Your task to perform on an android device: open app "Google Docs" Image 0: 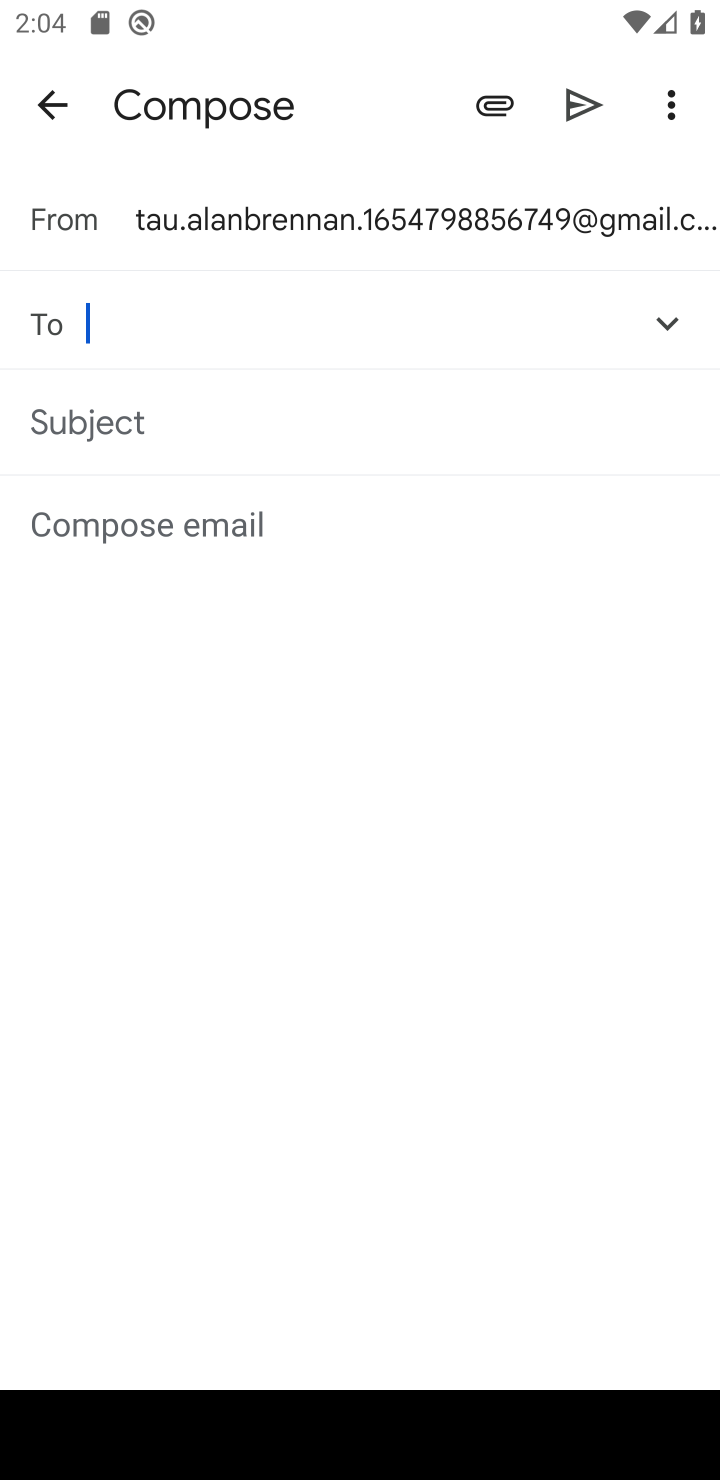
Step 0: click (465, 84)
Your task to perform on an android device: open app "Google Docs" Image 1: 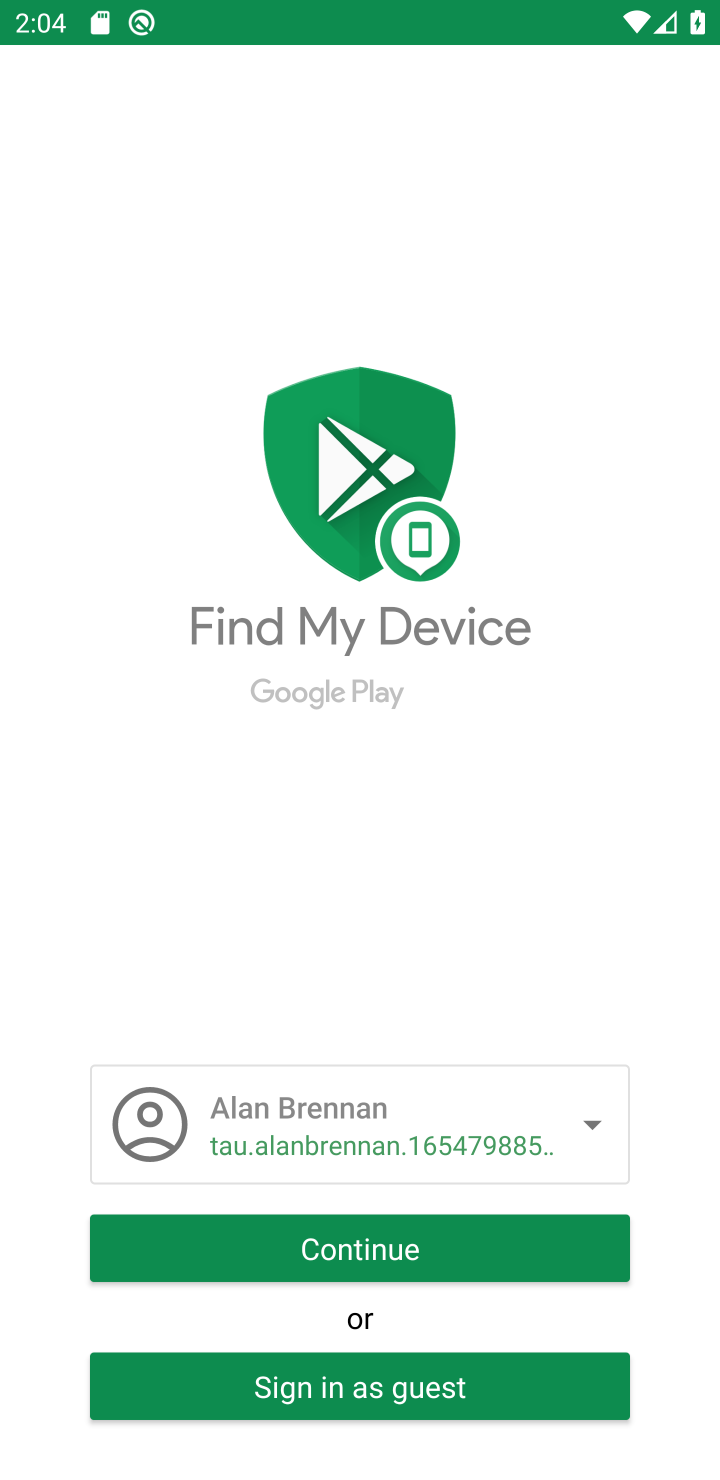
Step 1: press home button
Your task to perform on an android device: open app "Google Docs" Image 2: 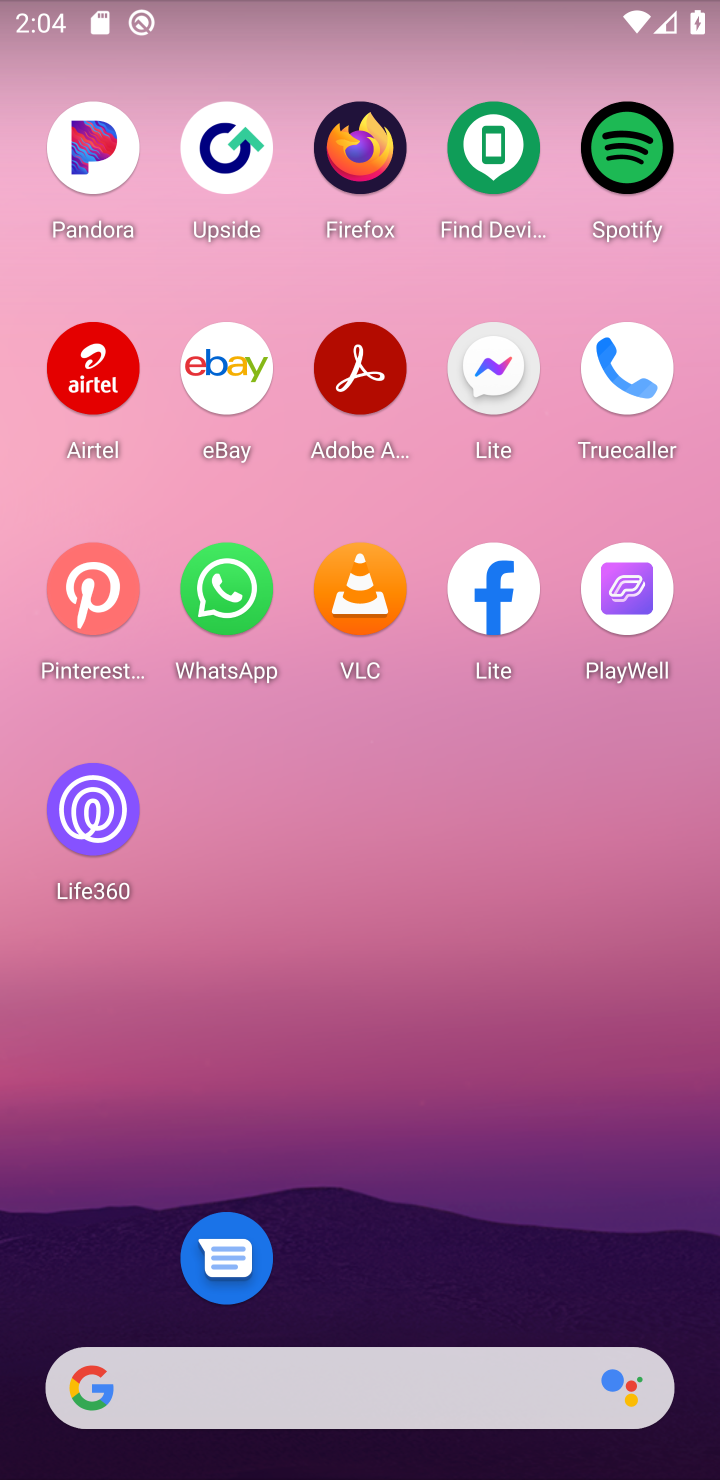
Step 2: drag from (450, 1190) to (450, 311)
Your task to perform on an android device: open app "Google Docs" Image 3: 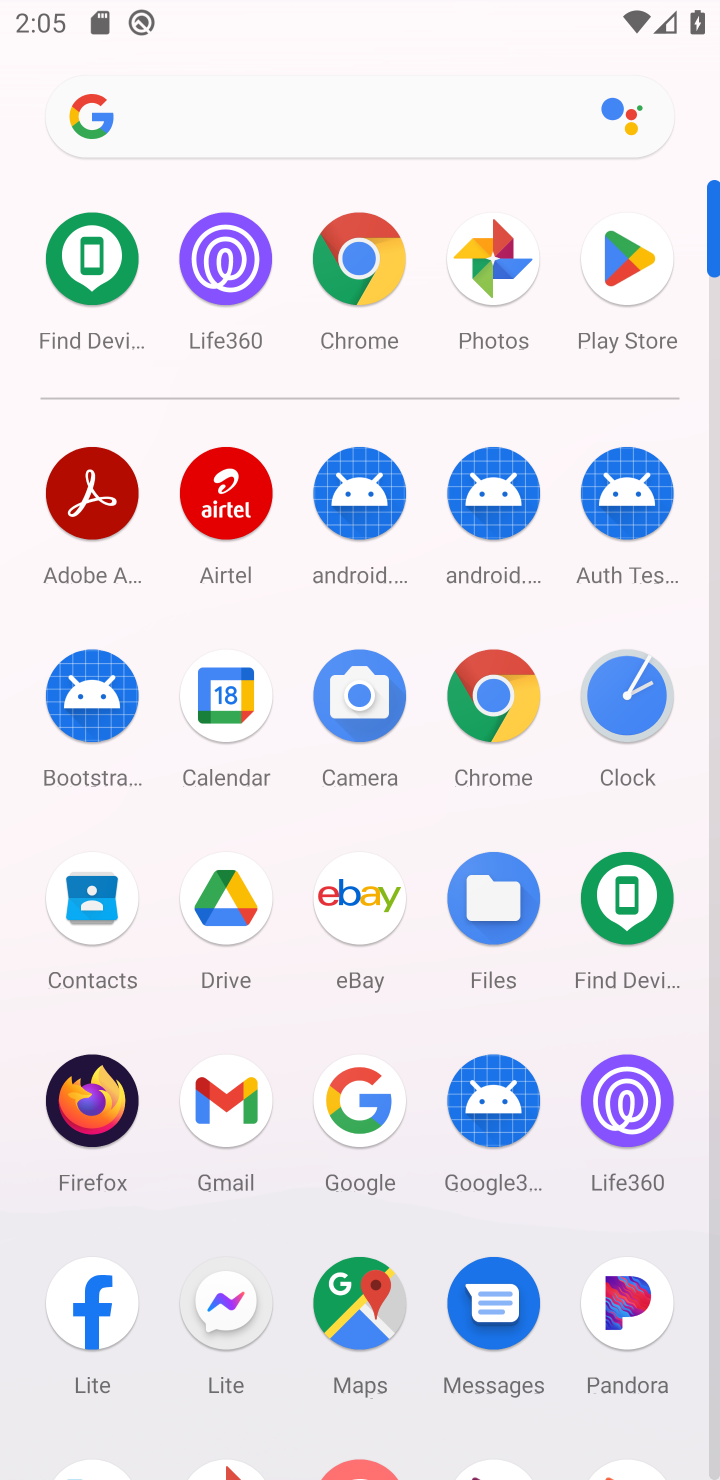
Step 3: click (613, 248)
Your task to perform on an android device: open app "Google Docs" Image 4: 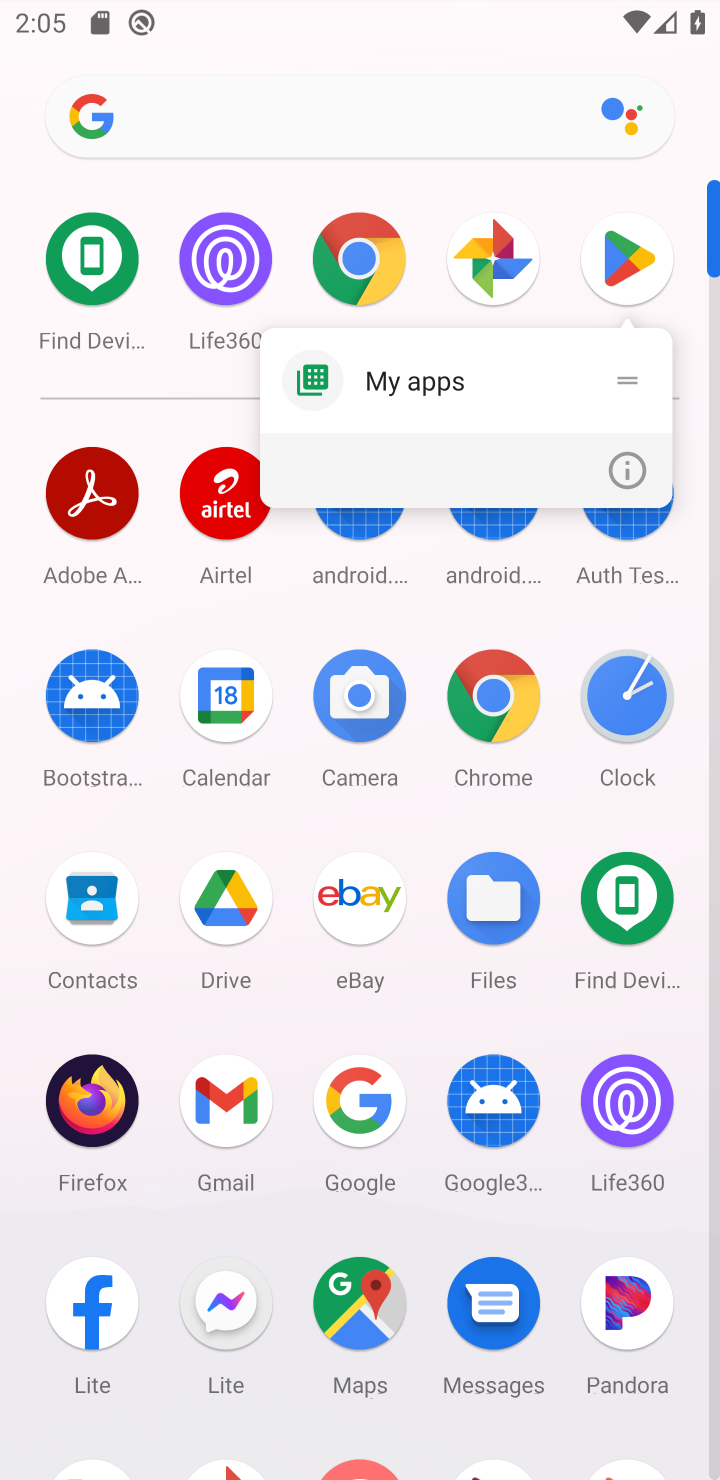
Step 4: click (644, 328)
Your task to perform on an android device: open app "Google Docs" Image 5: 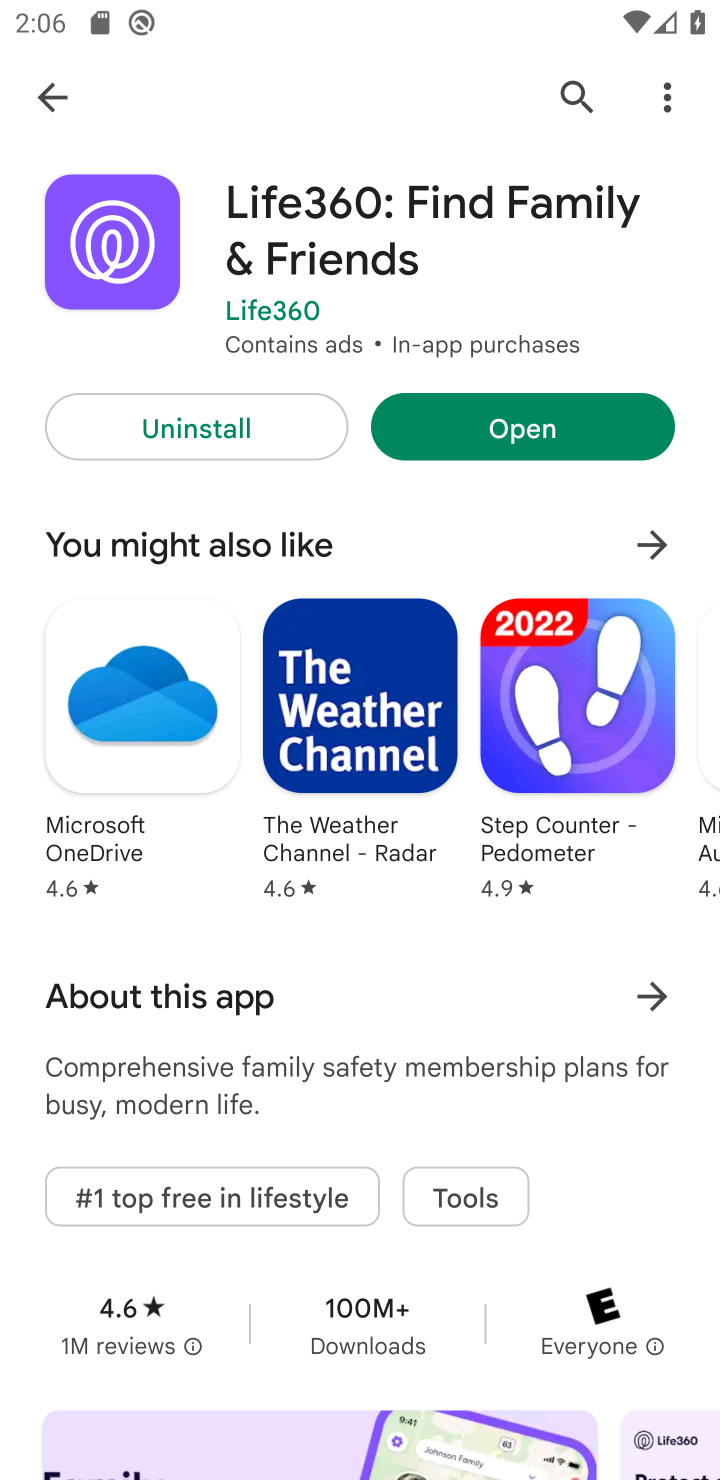
Step 5: click (39, 95)
Your task to perform on an android device: open app "Google Docs" Image 6: 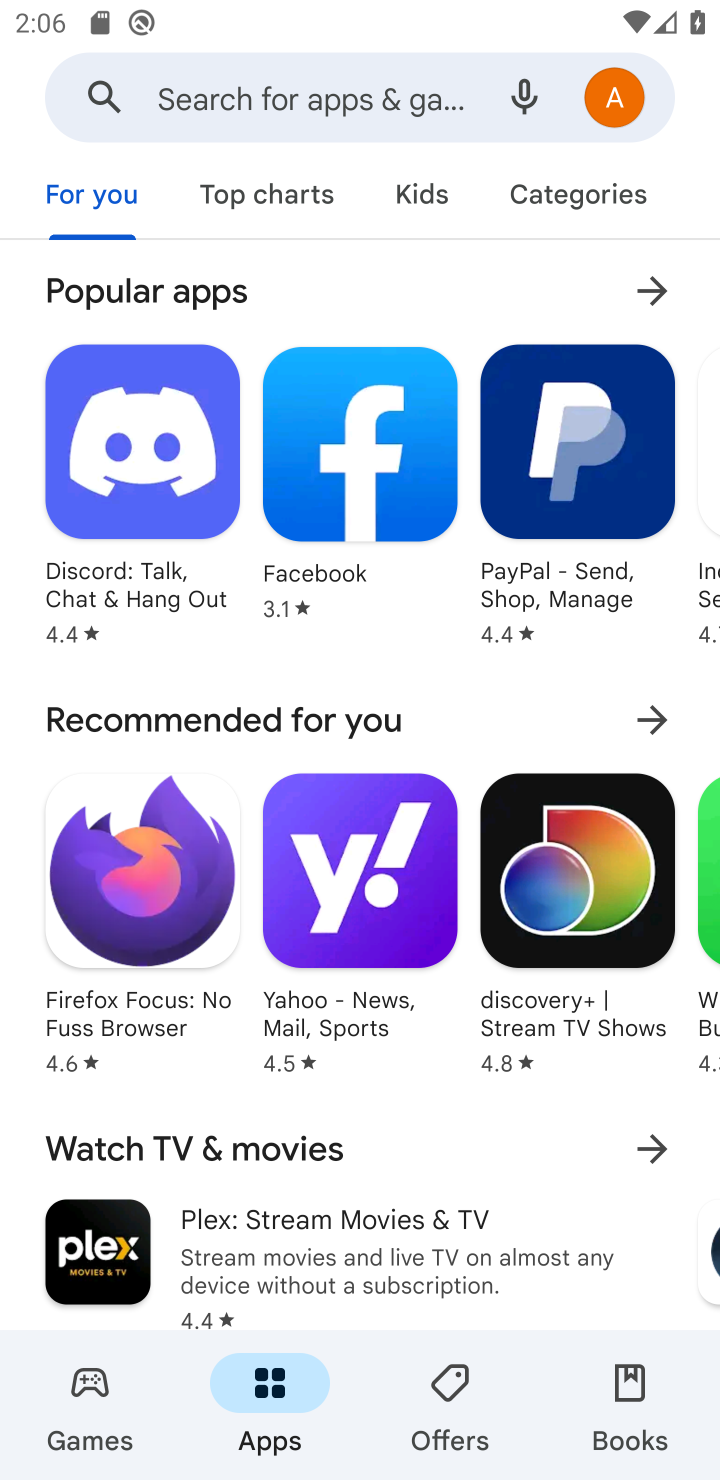
Step 6: click (320, 126)
Your task to perform on an android device: open app "Google Docs" Image 7: 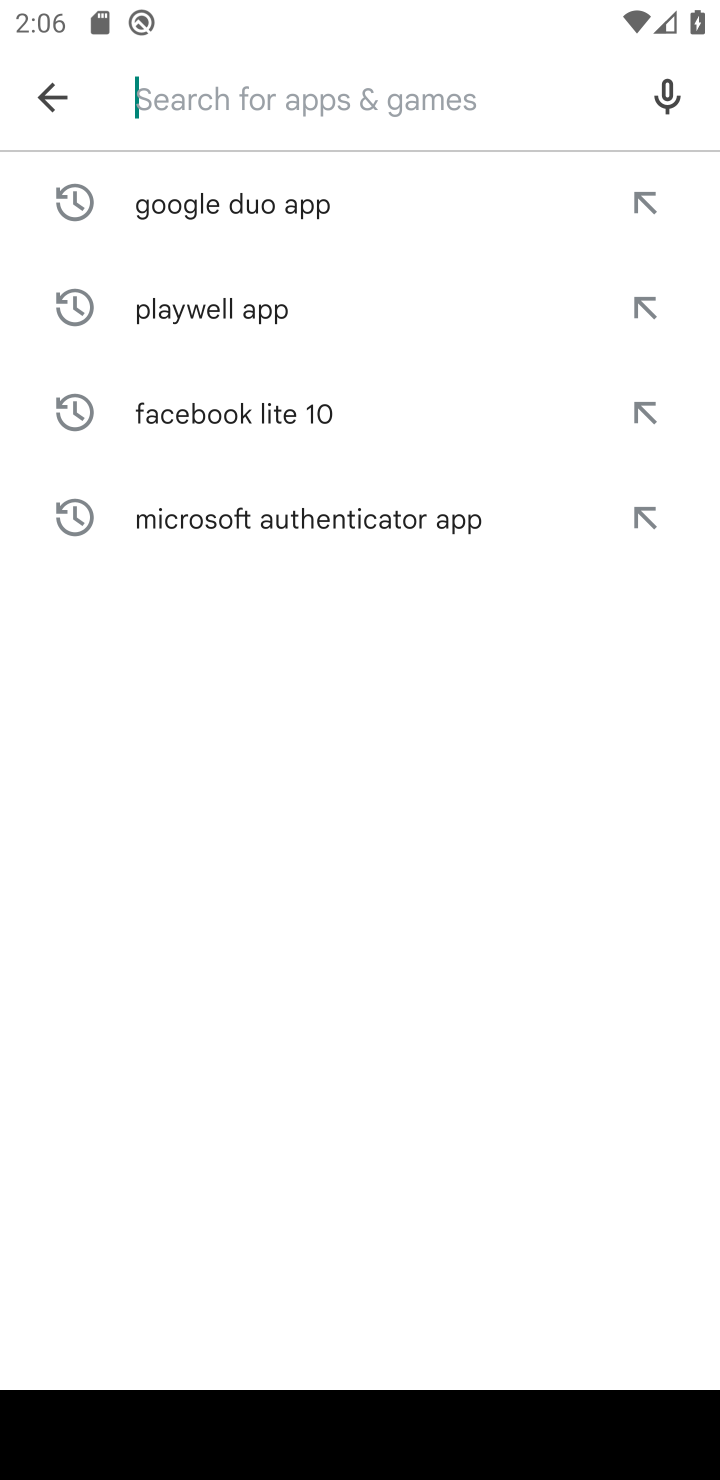
Step 7: click (273, 232)
Your task to perform on an android device: open app "Google Docs" Image 8: 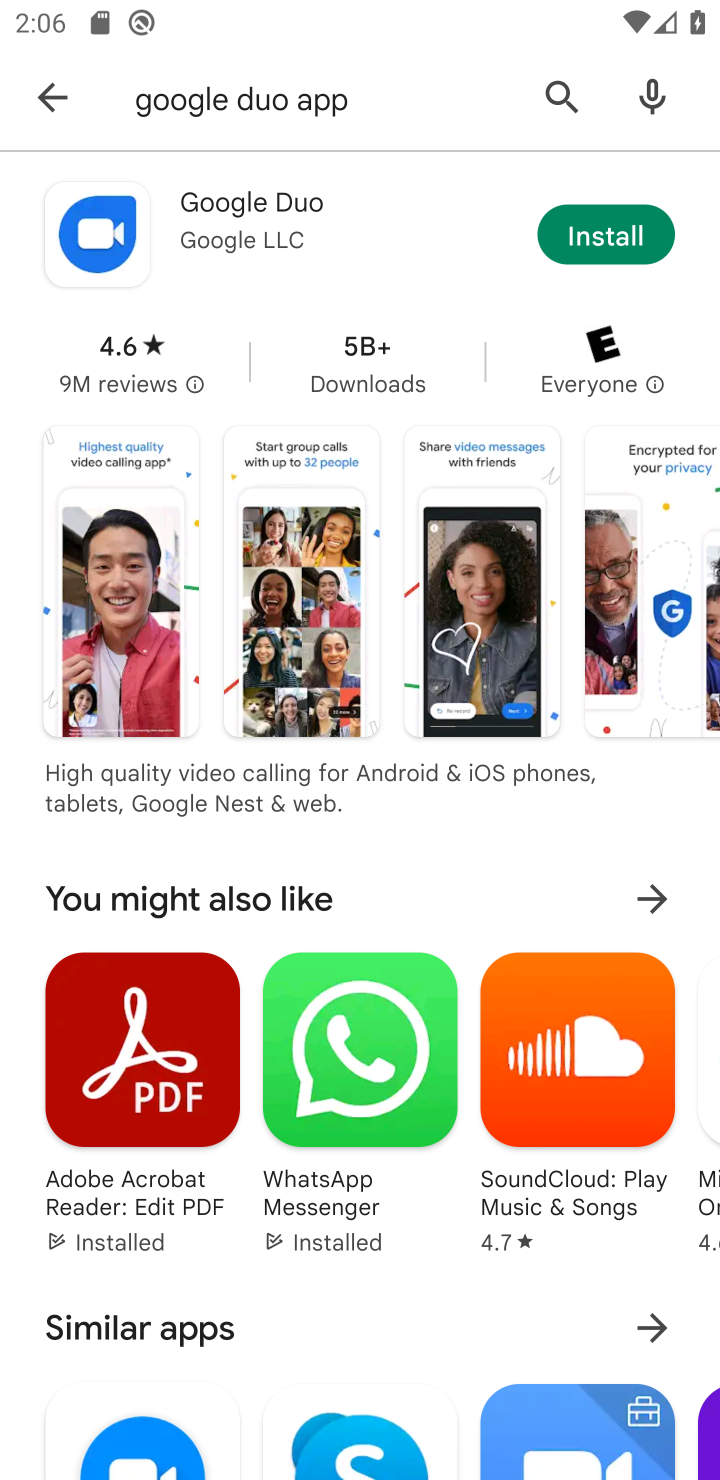
Step 8: click (582, 246)
Your task to perform on an android device: open app "Google Docs" Image 9: 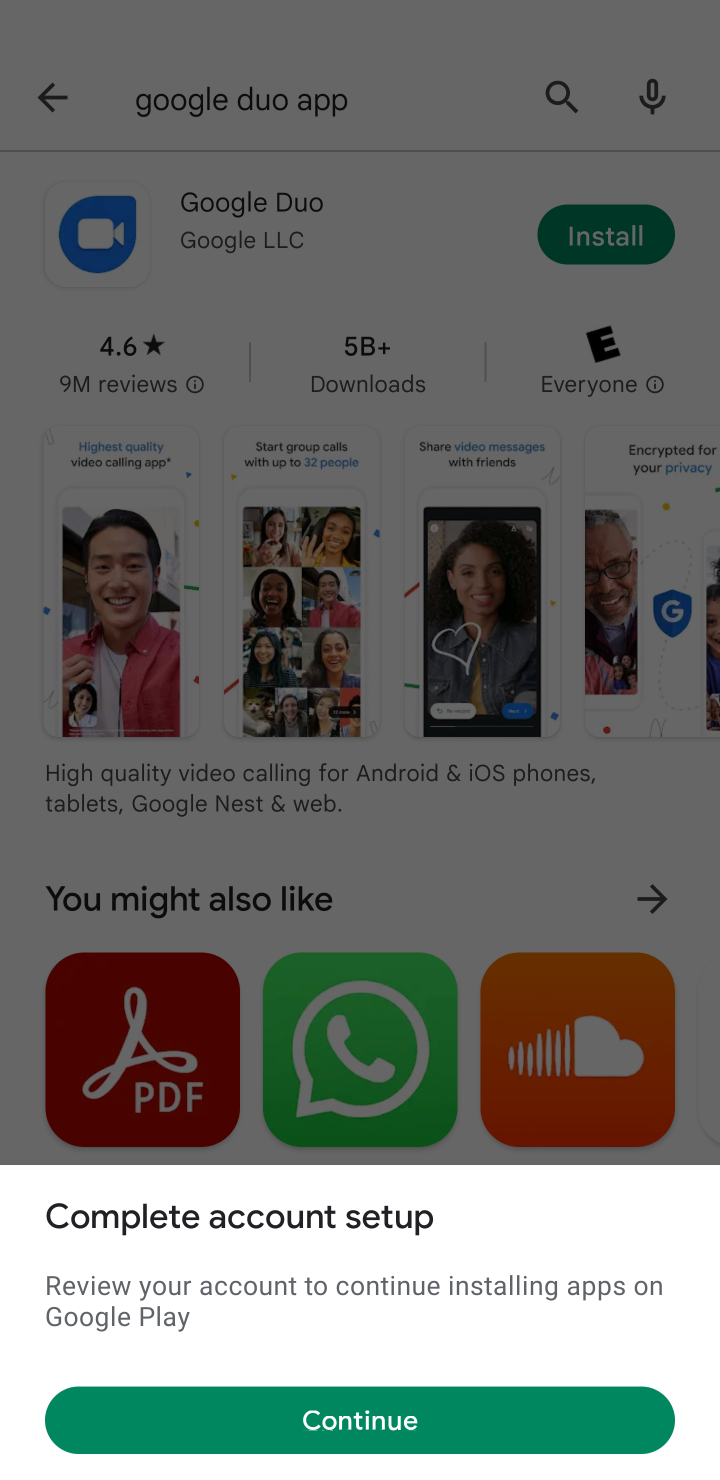
Step 9: click (327, 1381)
Your task to perform on an android device: open app "Google Docs" Image 10: 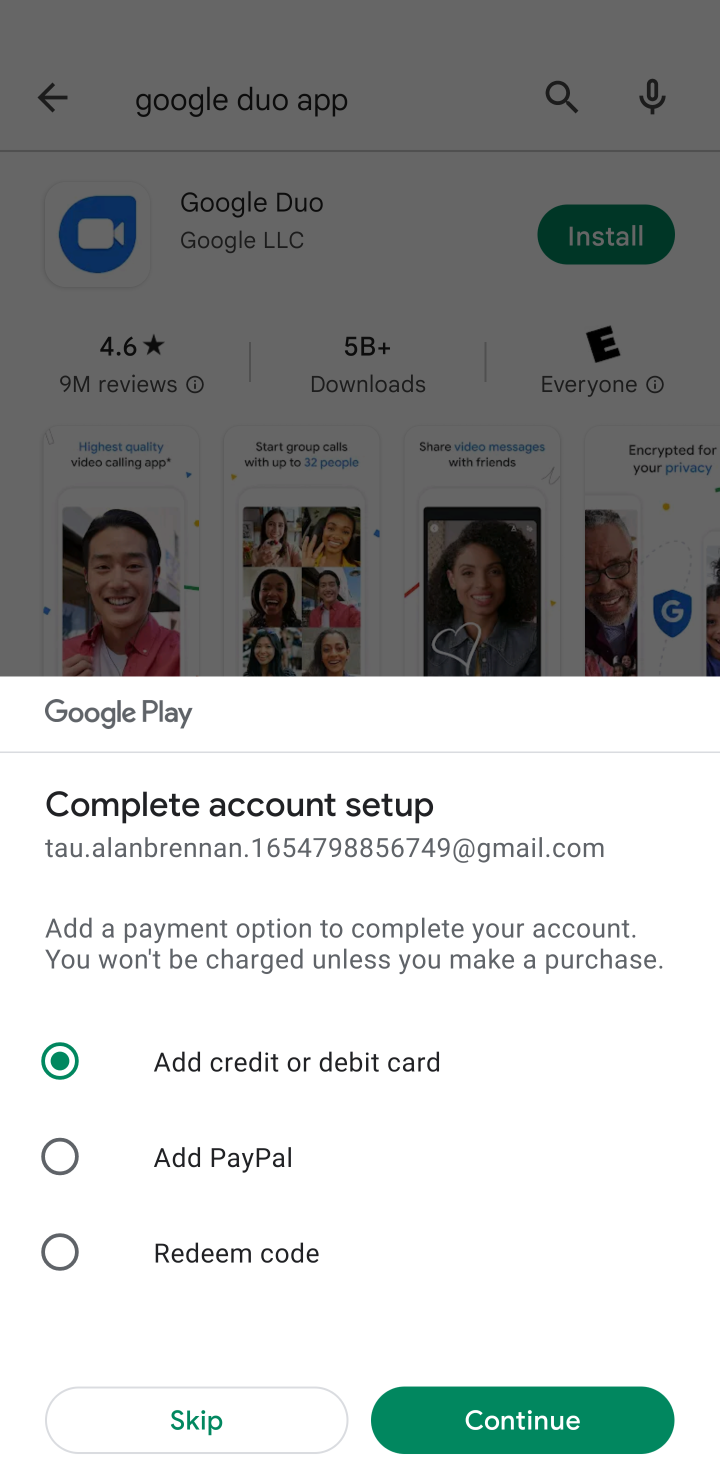
Step 10: task complete